Your task to perform on an android device: Do I have any events today? Image 0: 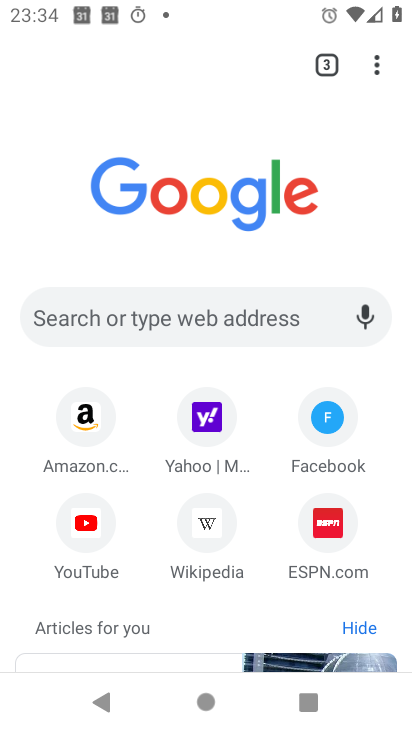
Step 0: press home button
Your task to perform on an android device: Do I have any events today? Image 1: 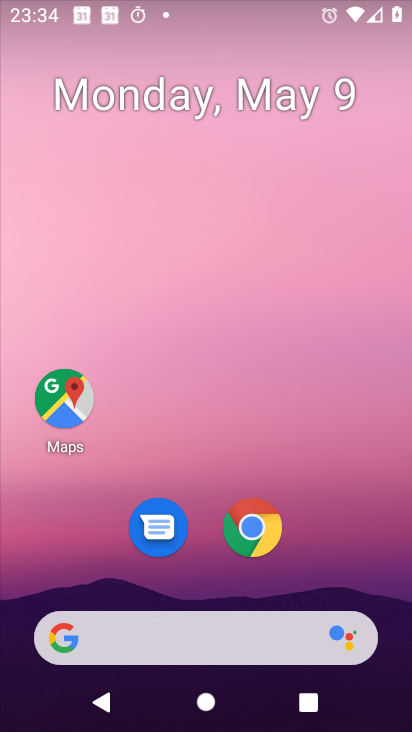
Step 1: drag from (194, 556) to (208, 79)
Your task to perform on an android device: Do I have any events today? Image 2: 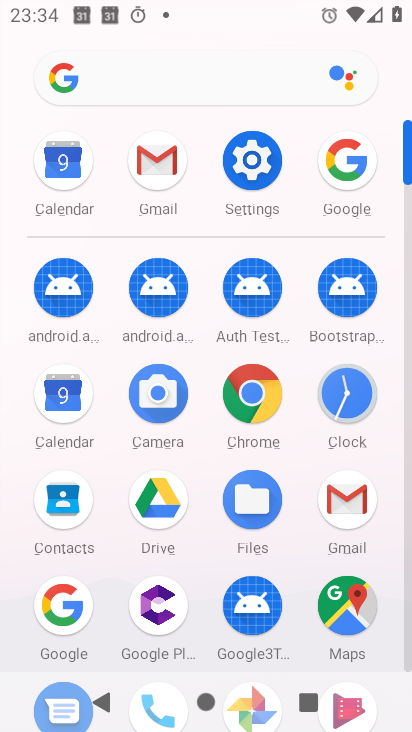
Step 2: click (63, 389)
Your task to perform on an android device: Do I have any events today? Image 3: 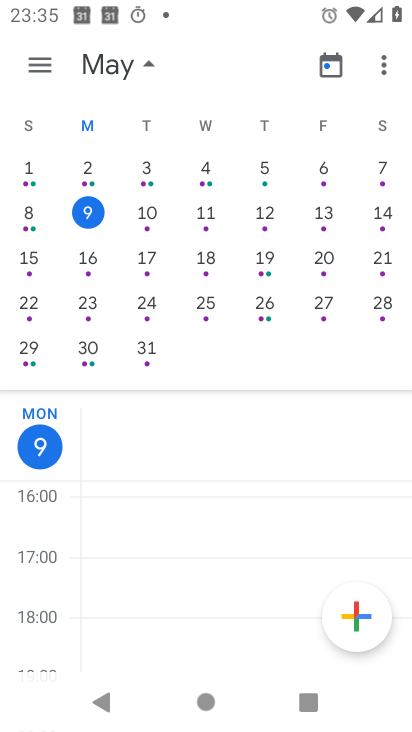
Step 3: task complete